Your task to perform on an android device: Open CNN.com Image 0: 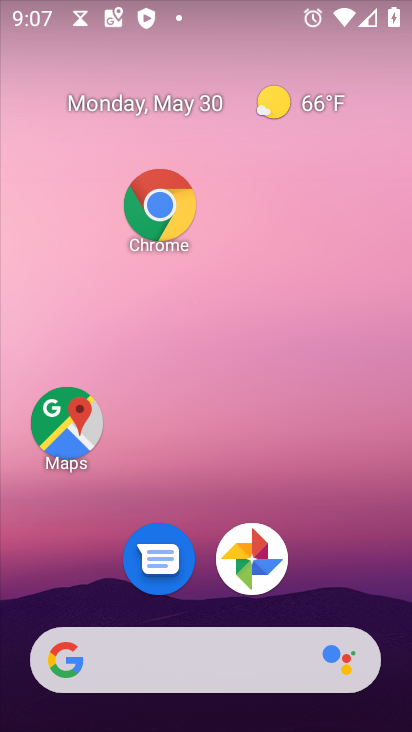
Step 0: drag from (246, 690) to (231, 161)
Your task to perform on an android device: Open CNN.com Image 1: 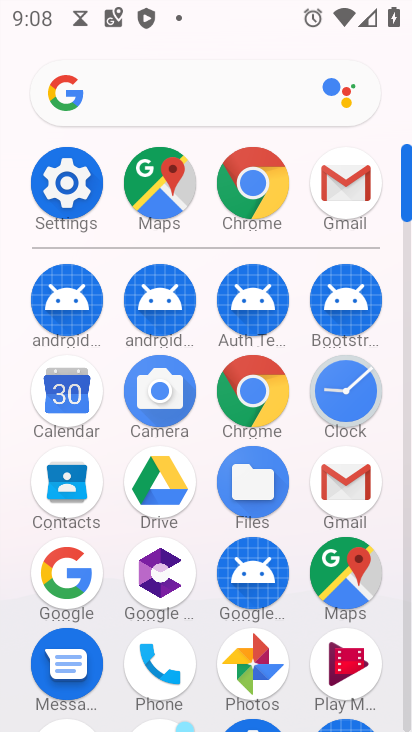
Step 1: click (245, 193)
Your task to perform on an android device: Open CNN.com Image 2: 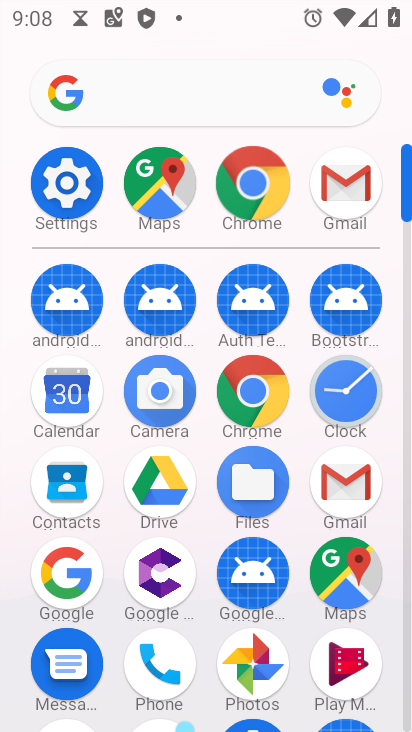
Step 2: click (245, 193)
Your task to perform on an android device: Open CNN.com Image 3: 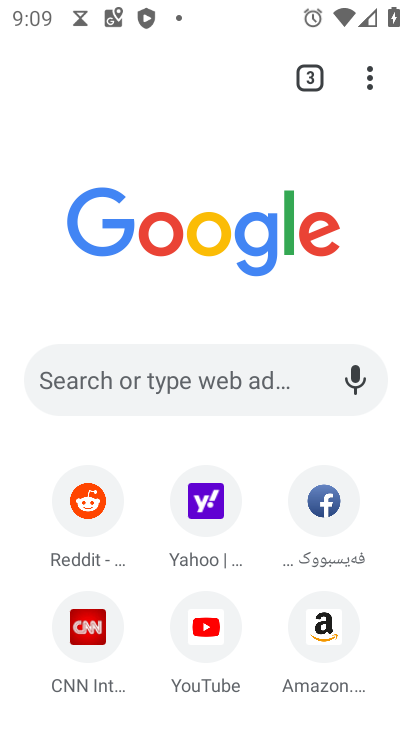
Step 3: click (74, 390)
Your task to perform on an android device: Open CNN.com Image 4: 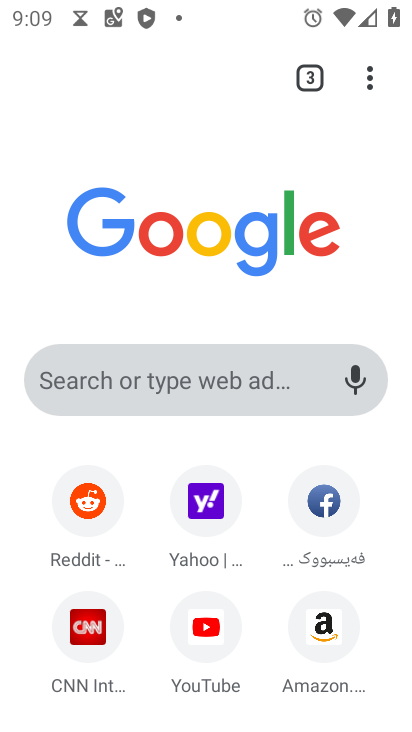
Step 4: click (74, 390)
Your task to perform on an android device: Open CNN.com Image 5: 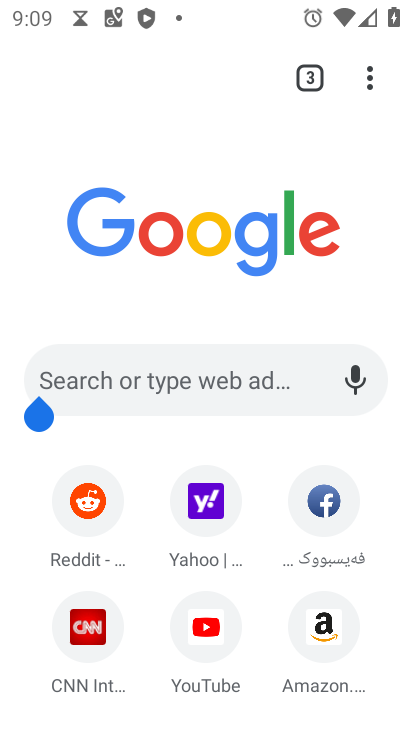
Step 5: click (74, 390)
Your task to perform on an android device: Open CNN.com Image 6: 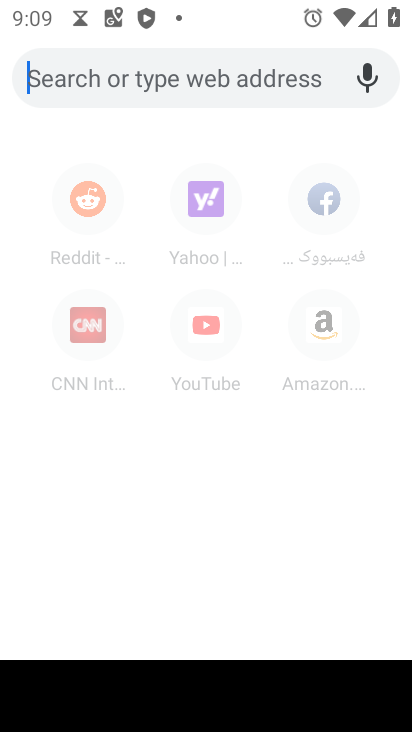
Step 6: type "cnn.com"
Your task to perform on an android device: Open CNN.com Image 7: 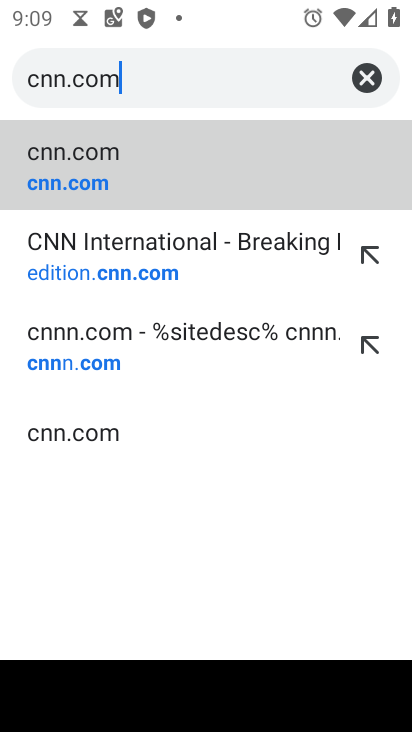
Step 7: click (67, 182)
Your task to perform on an android device: Open CNN.com Image 8: 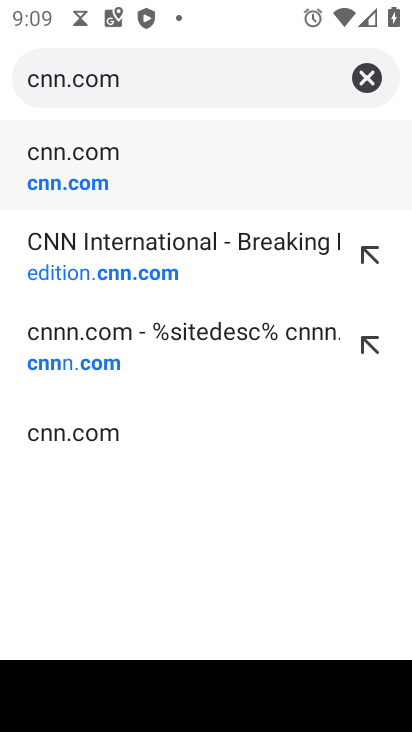
Step 8: click (72, 180)
Your task to perform on an android device: Open CNN.com Image 9: 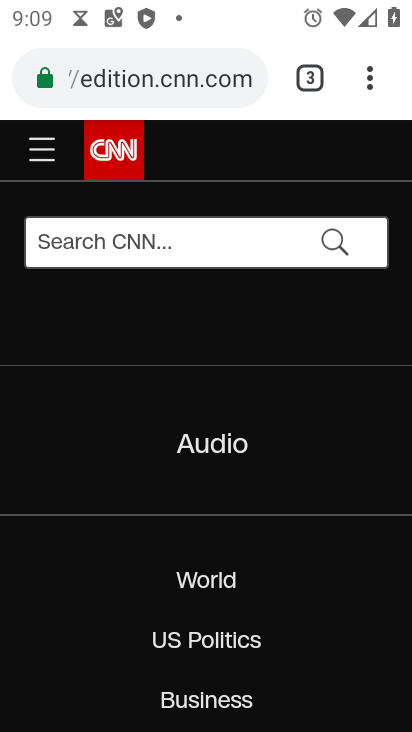
Step 9: task complete